Your task to perform on an android device: Go to Google Image 0: 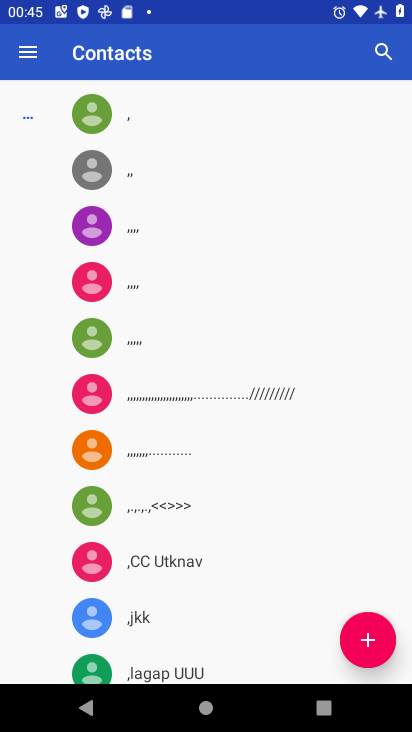
Step 0: press home button
Your task to perform on an android device: Go to Google Image 1: 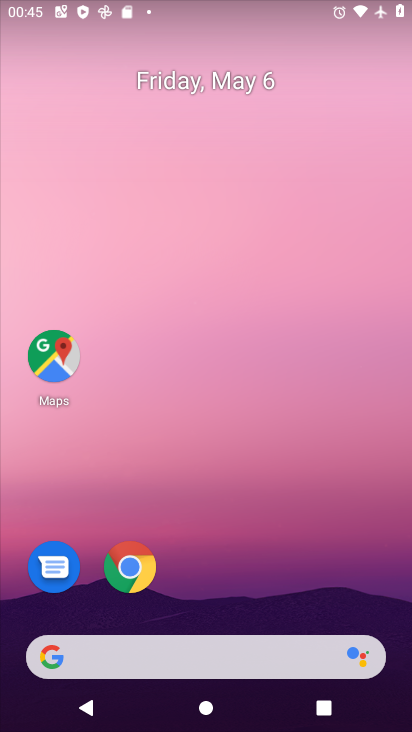
Step 1: press home button
Your task to perform on an android device: Go to Google Image 2: 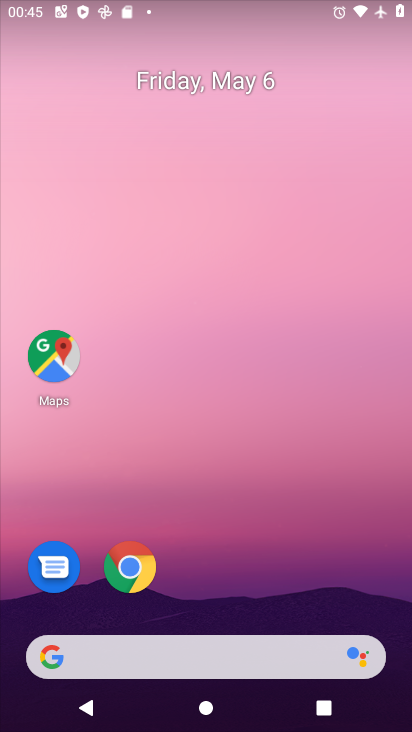
Step 2: drag from (195, 593) to (222, 192)
Your task to perform on an android device: Go to Google Image 3: 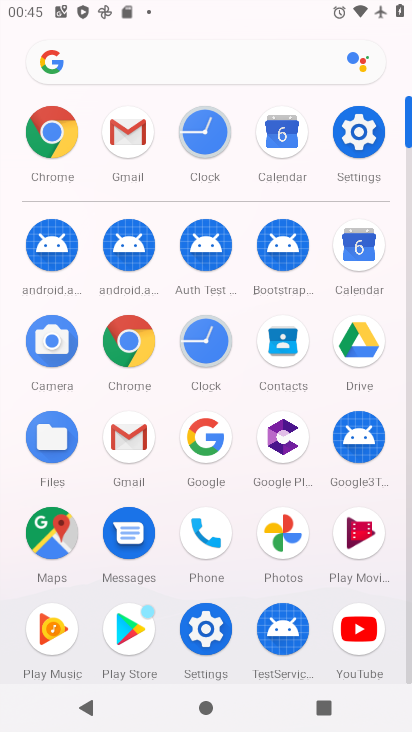
Step 3: click (197, 440)
Your task to perform on an android device: Go to Google Image 4: 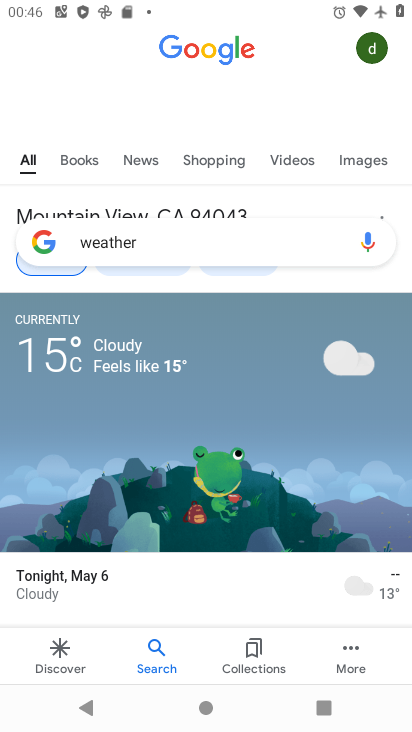
Step 4: task complete